Your task to perform on an android device: check data usage Image 0: 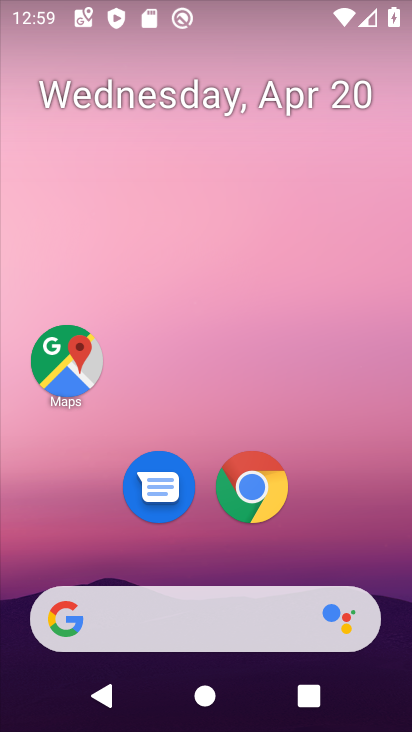
Step 0: drag from (345, 545) to (248, 96)
Your task to perform on an android device: check data usage Image 1: 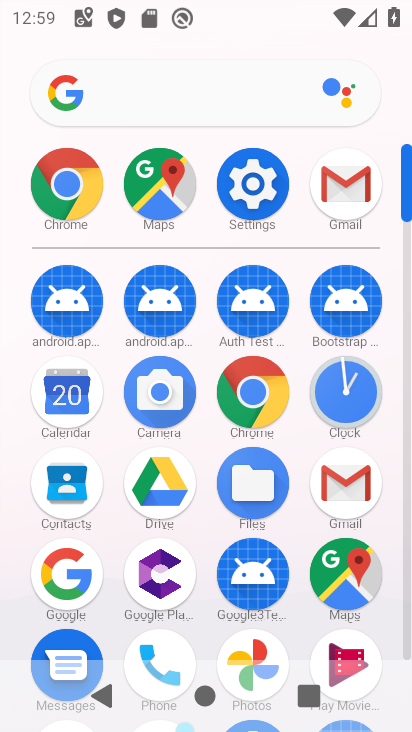
Step 1: click (270, 184)
Your task to perform on an android device: check data usage Image 2: 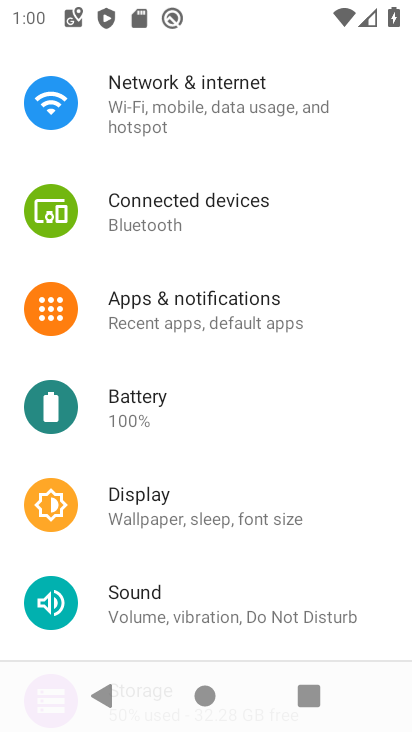
Step 2: click (201, 104)
Your task to perform on an android device: check data usage Image 3: 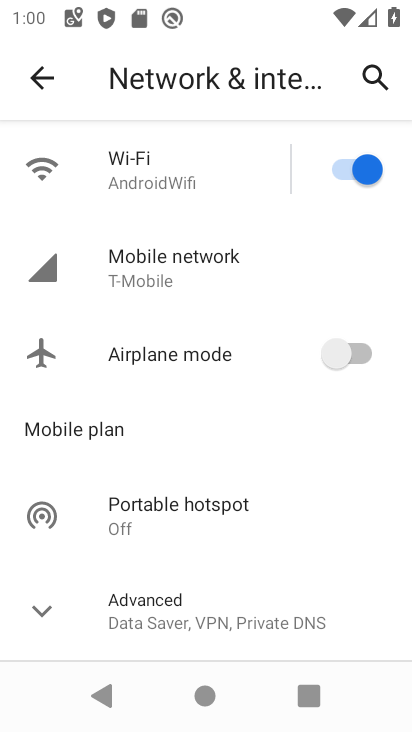
Step 3: click (179, 269)
Your task to perform on an android device: check data usage Image 4: 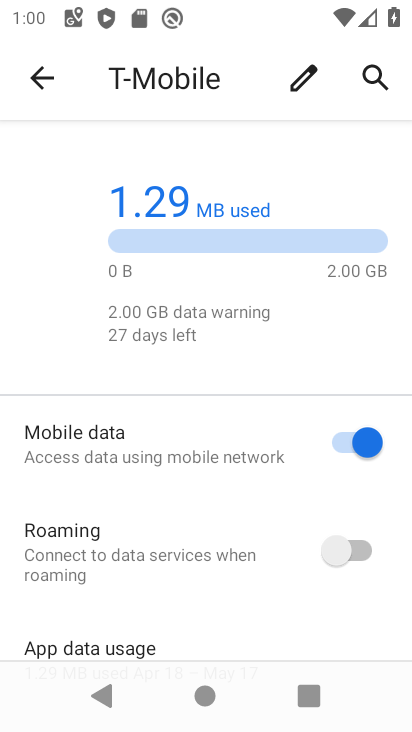
Step 4: click (166, 645)
Your task to perform on an android device: check data usage Image 5: 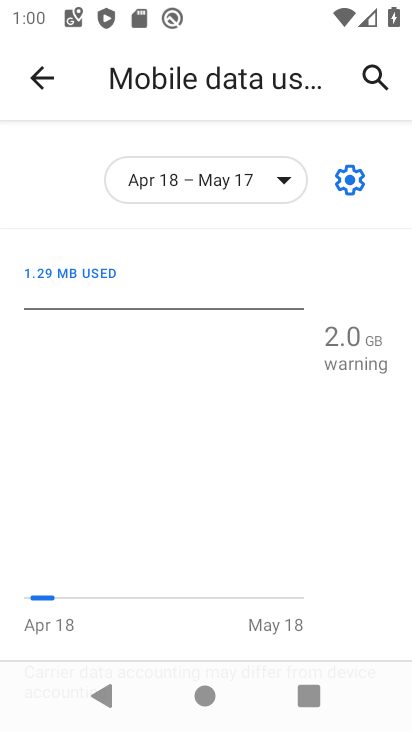
Step 5: task complete